Your task to perform on an android device: change the clock style Image 0: 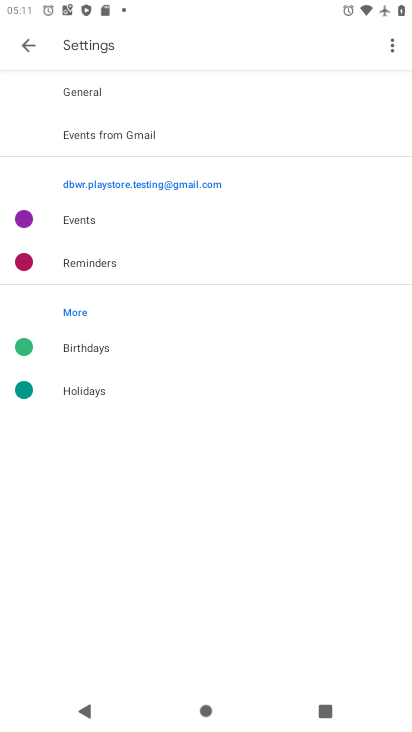
Step 0: drag from (232, 584) to (232, 549)
Your task to perform on an android device: change the clock style Image 1: 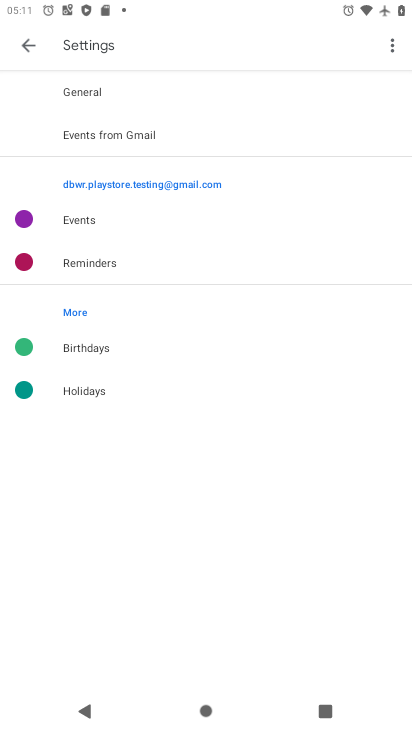
Step 1: press back button
Your task to perform on an android device: change the clock style Image 2: 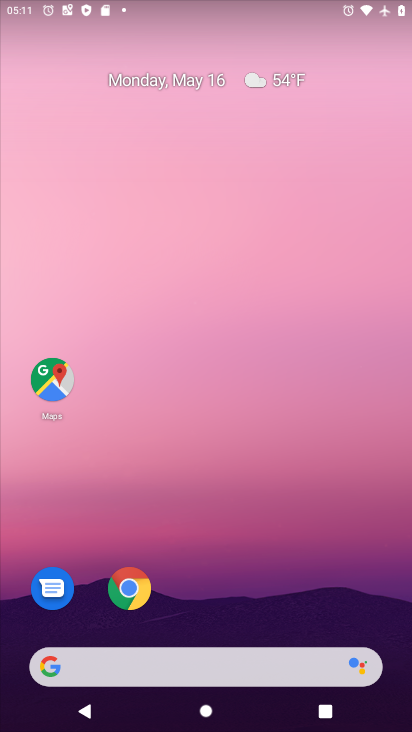
Step 2: drag from (232, 576) to (224, 2)
Your task to perform on an android device: change the clock style Image 3: 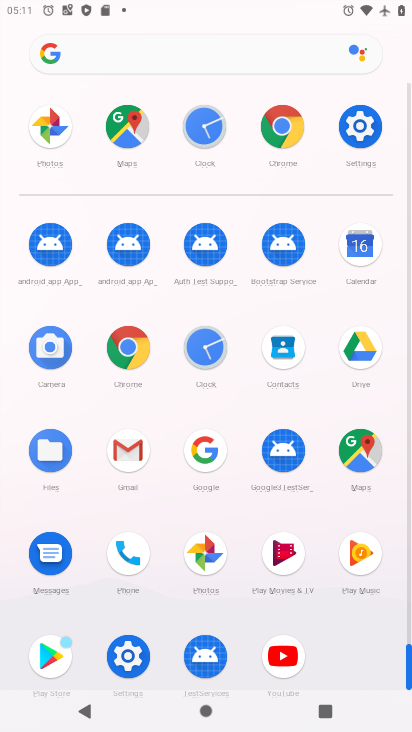
Step 3: drag from (10, 537) to (27, 315)
Your task to perform on an android device: change the clock style Image 4: 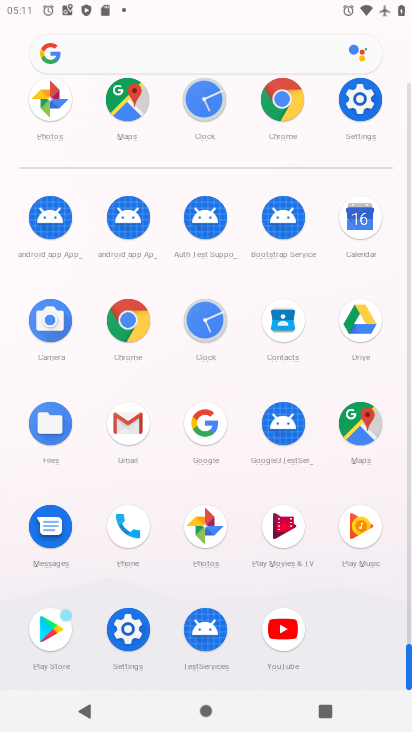
Step 4: click (202, 318)
Your task to perform on an android device: change the clock style Image 5: 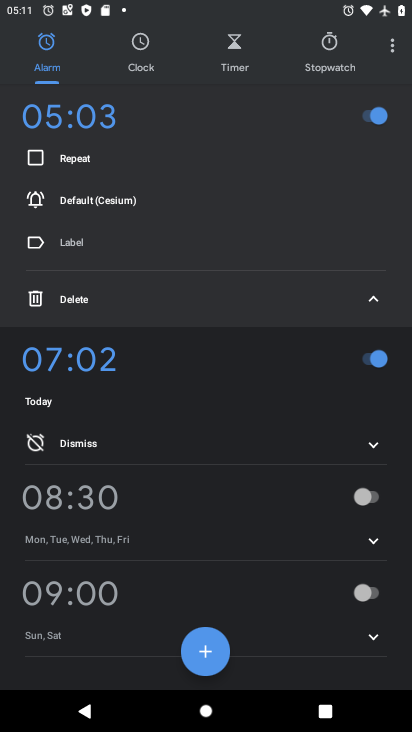
Step 5: drag from (388, 50) to (298, 89)
Your task to perform on an android device: change the clock style Image 6: 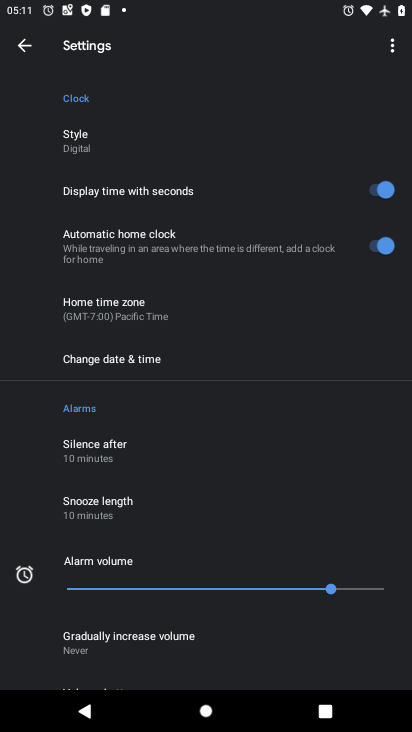
Step 6: click (143, 145)
Your task to perform on an android device: change the clock style Image 7: 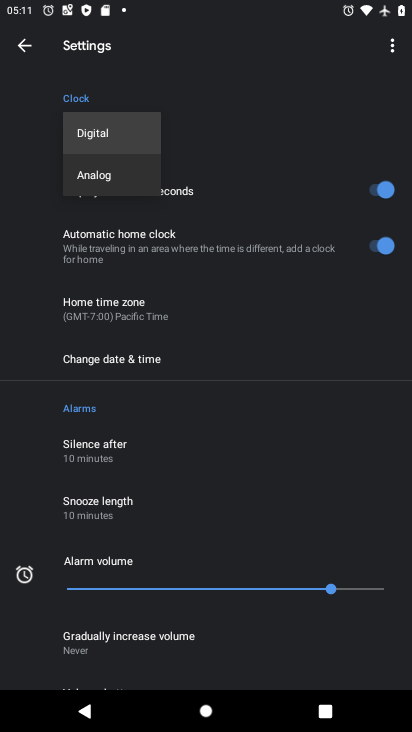
Step 7: click (123, 167)
Your task to perform on an android device: change the clock style Image 8: 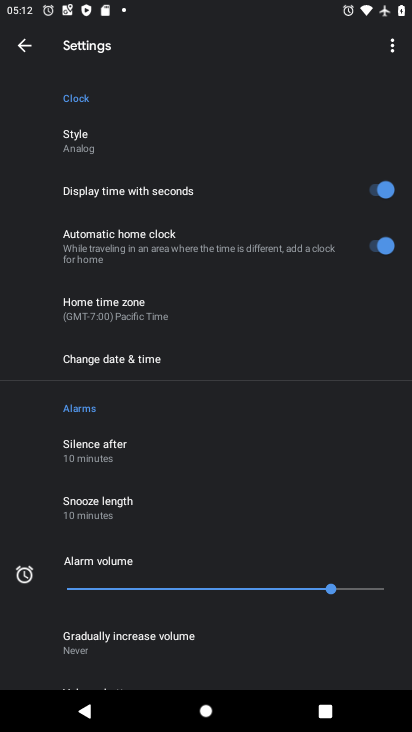
Step 8: task complete